Your task to perform on an android device: change the upload size in google photos Image 0: 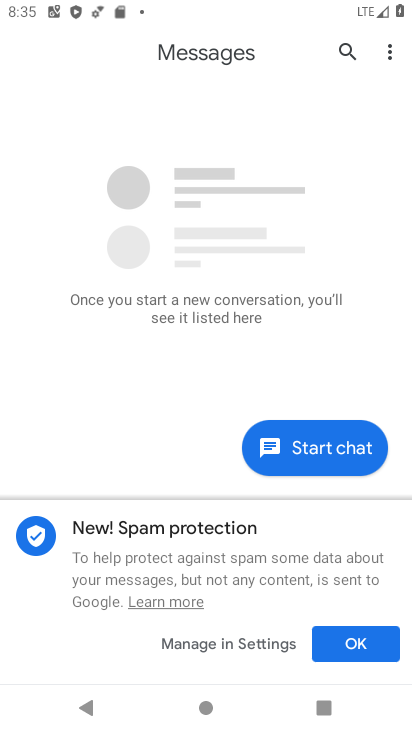
Step 0: press home button
Your task to perform on an android device: change the upload size in google photos Image 1: 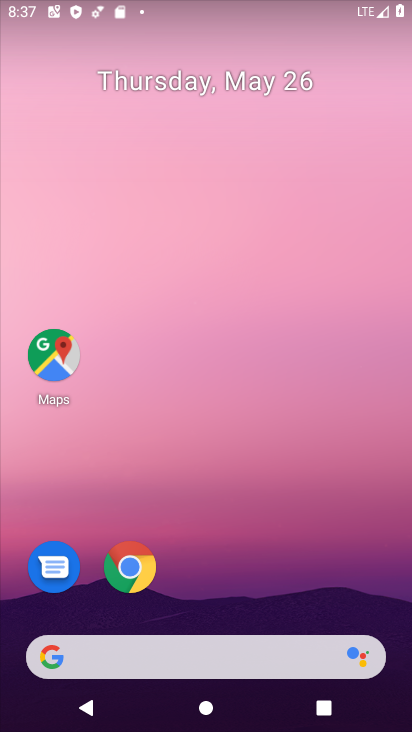
Step 1: drag from (205, 635) to (171, 78)
Your task to perform on an android device: change the upload size in google photos Image 2: 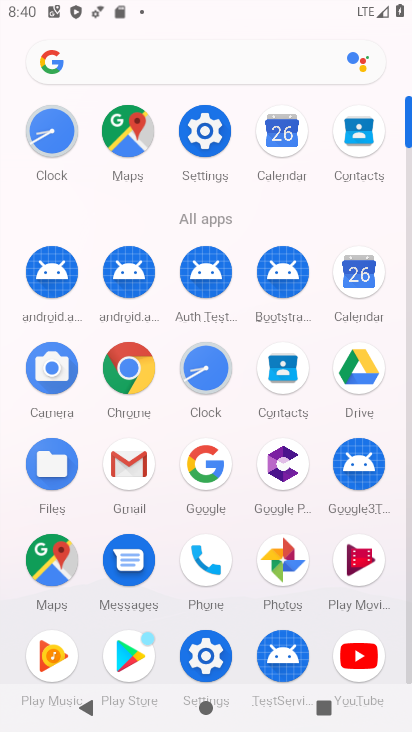
Step 2: click (269, 559)
Your task to perform on an android device: change the upload size in google photos Image 3: 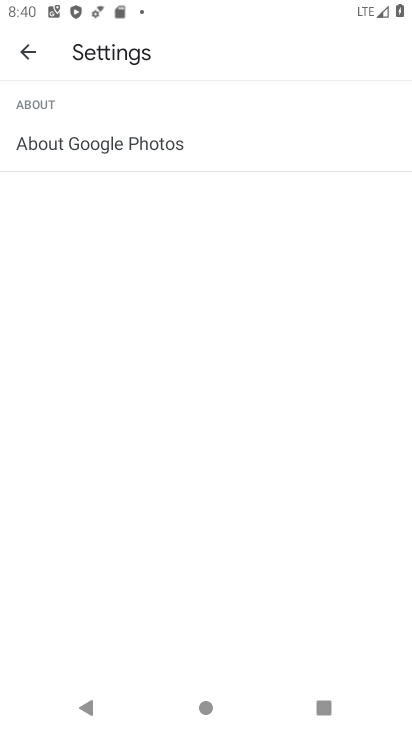
Step 3: click (34, 48)
Your task to perform on an android device: change the upload size in google photos Image 4: 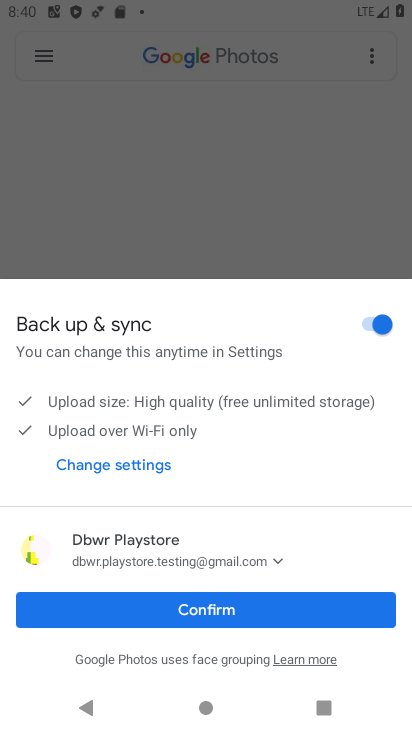
Step 4: click (124, 463)
Your task to perform on an android device: change the upload size in google photos Image 5: 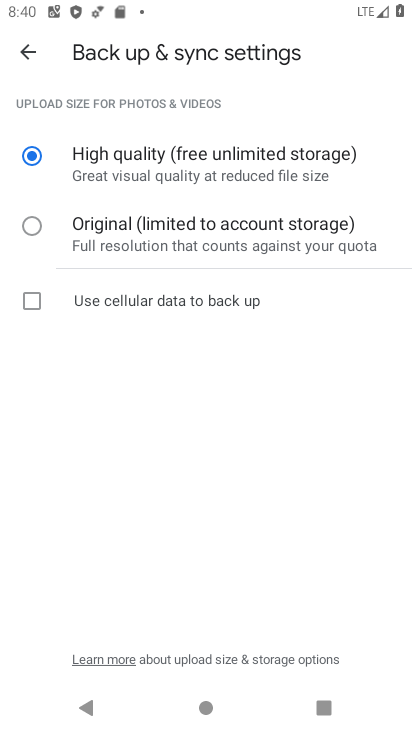
Step 5: click (110, 220)
Your task to perform on an android device: change the upload size in google photos Image 6: 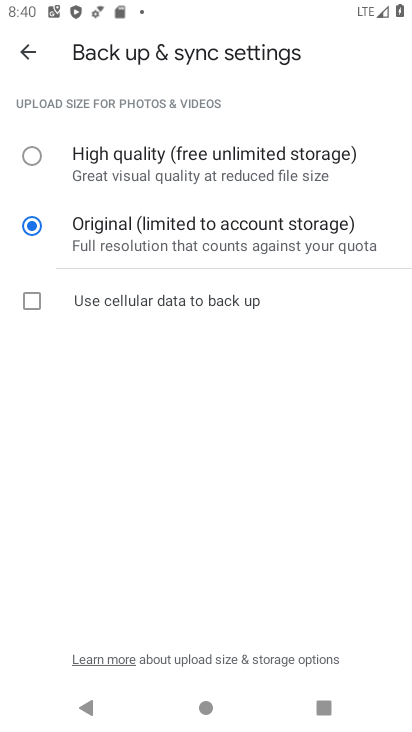
Step 6: task complete